Your task to perform on an android device: turn off location history Image 0: 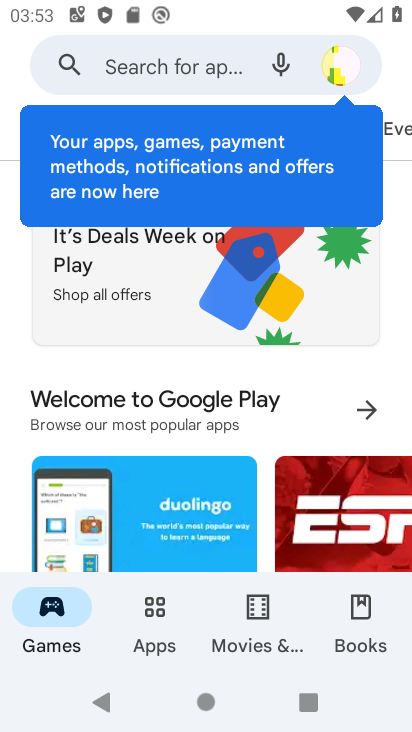
Step 0: press home button
Your task to perform on an android device: turn off location history Image 1: 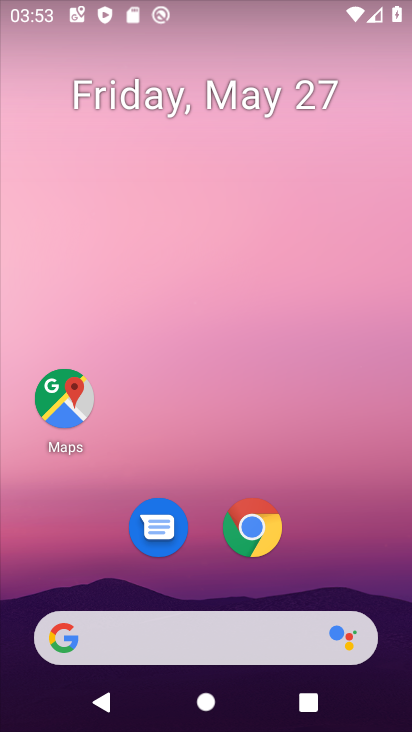
Step 1: drag from (346, 566) to (352, 229)
Your task to perform on an android device: turn off location history Image 2: 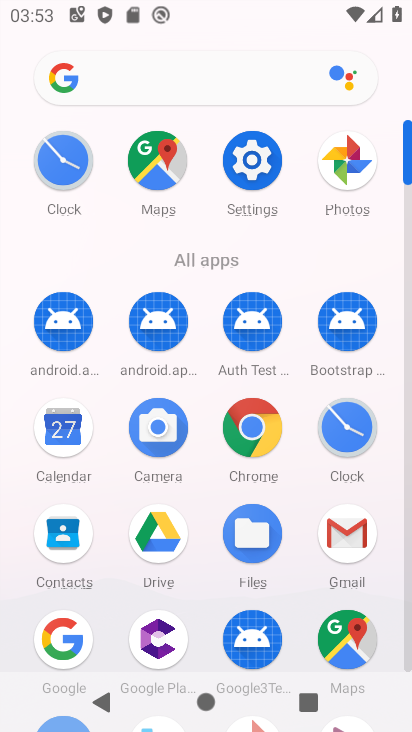
Step 2: click (149, 182)
Your task to perform on an android device: turn off location history Image 3: 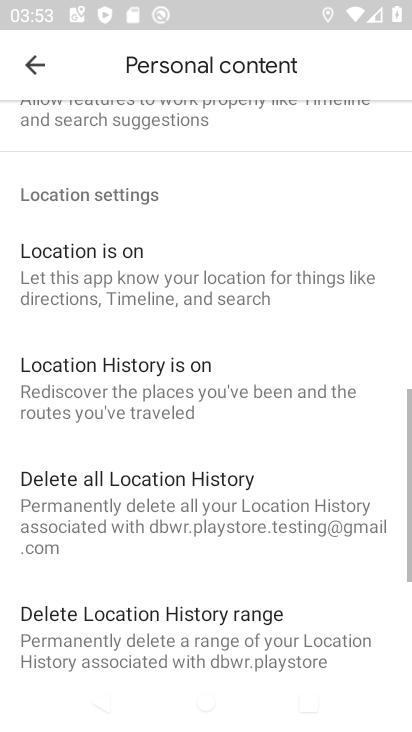
Step 3: click (176, 399)
Your task to perform on an android device: turn off location history Image 4: 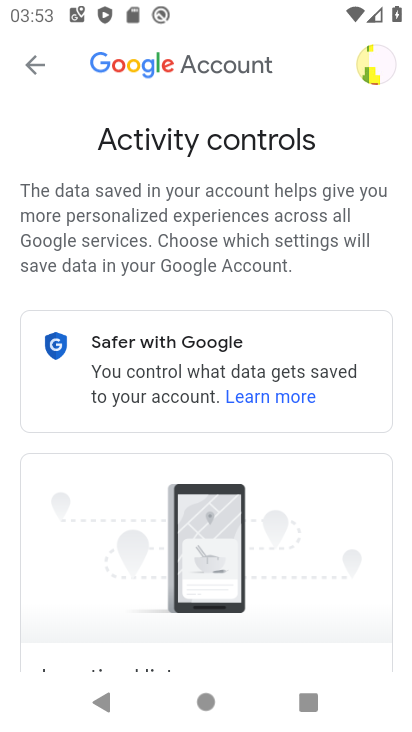
Step 4: task complete